Your task to perform on an android device: delete the emails in spam in the gmail app Image 0: 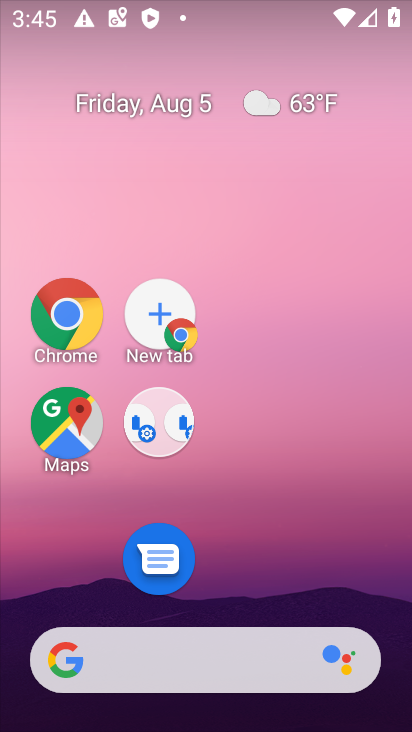
Step 0: drag from (276, 660) to (184, 121)
Your task to perform on an android device: delete the emails in spam in the gmail app Image 1: 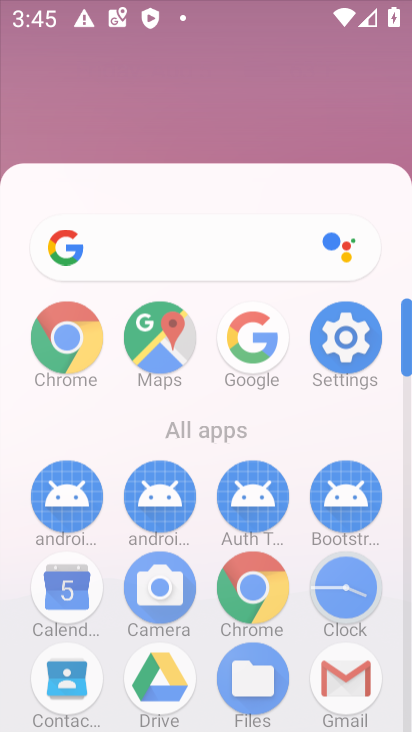
Step 1: drag from (248, 479) to (207, 160)
Your task to perform on an android device: delete the emails in spam in the gmail app Image 2: 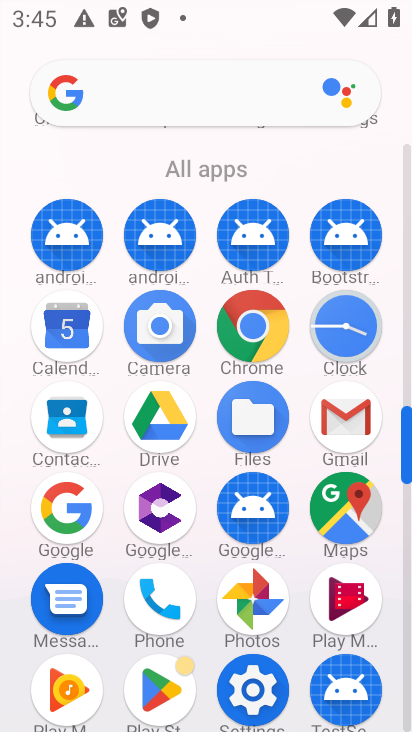
Step 2: drag from (229, 424) to (197, 149)
Your task to perform on an android device: delete the emails in spam in the gmail app Image 3: 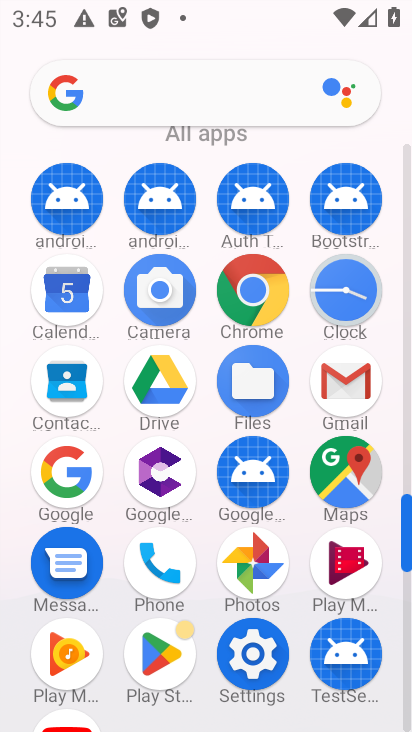
Step 3: click (340, 375)
Your task to perform on an android device: delete the emails in spam in the gmail app Image 4: 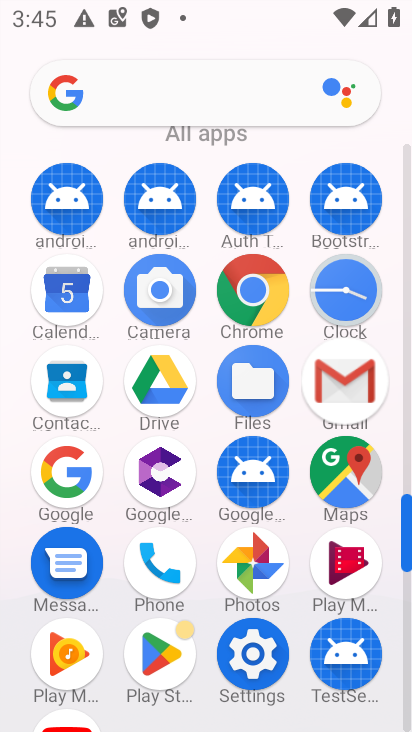
Step 4: click (340, 375)
Your task to perform on an android device: delete the emails in spam in the gmail app Image 5: 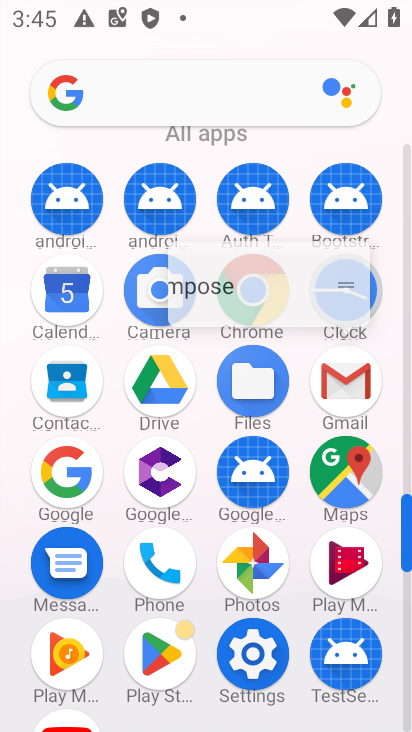
Step 5: click (339, 374)
Your task to perform on an android device: delete the emails in spam in the gmail app Image 6: 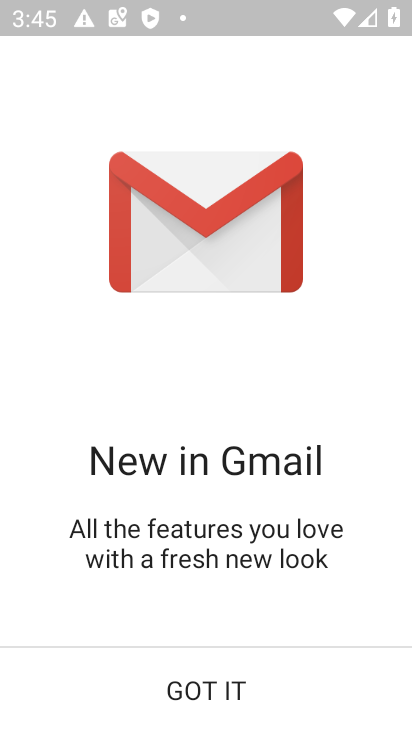
Step 6: click (222, 682)
Your task to perform on an android device: delete the emails in spam in the gmail app Image 7: 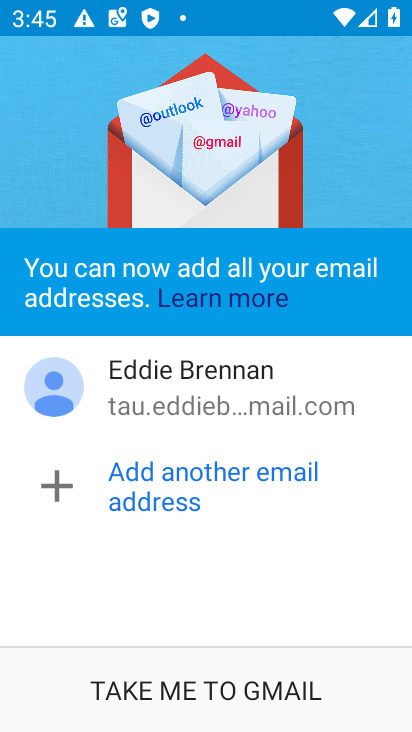
Step 7: click (221, 689)
Your task to perform on an android device: delete the emails in spam in the gmail app Image 8: 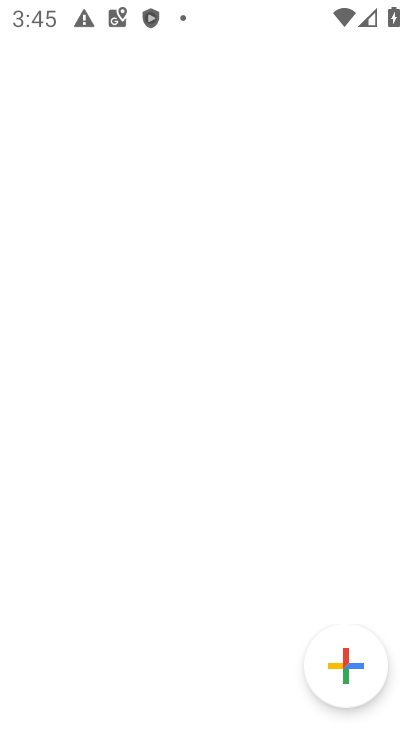
Step 8: click (222, 690)
Your task to perform on an android device: delete the emails in spam in the gmail app Image 9: 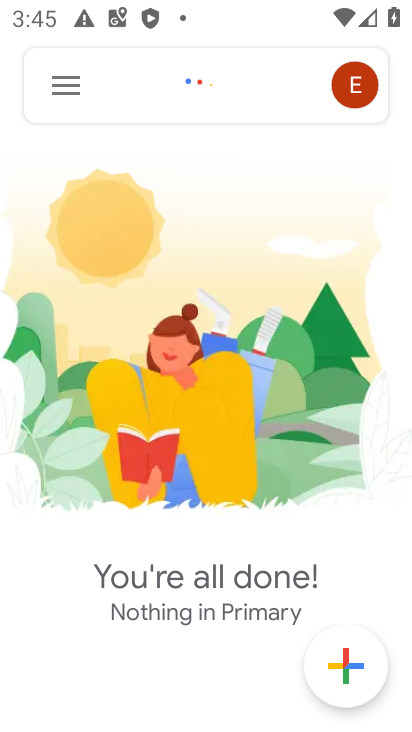
Step 9: click (63, 87)
Your task to perform on an android device: delete the emails in spam in the gmail app Image 10: 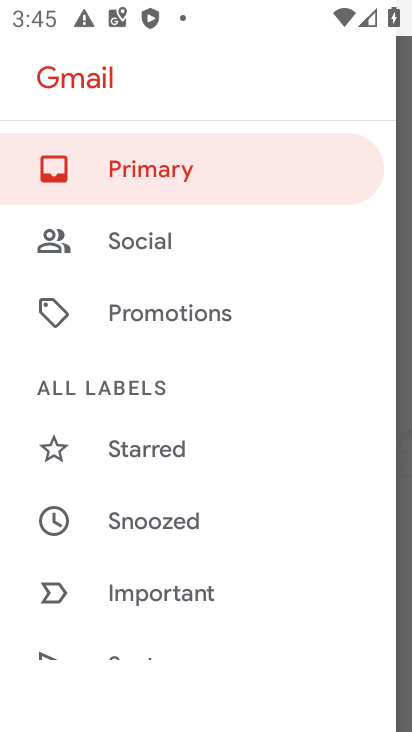
Step 10: drag from (182, 512) to (83, 160)
Your task to perform on an android device: delete the emails in spam in the gmail app Image 11: 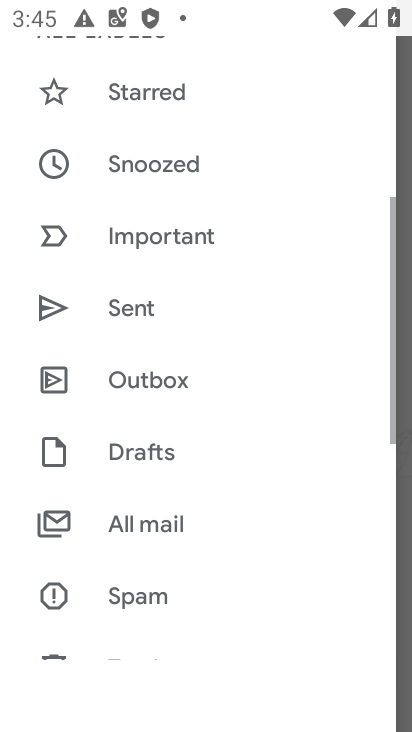
Step 11: drag from (196, 431) to (165, 218)
Your task to perform on an android device: delete the emails in spam in the gmail app Image 12: 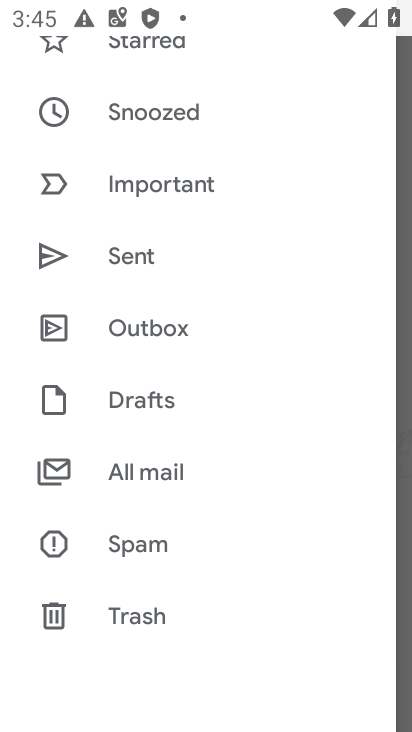
Step 12: click (152, 474)
Your task to perform on an android device: delete the emails in spam in the gmail app Image 13: 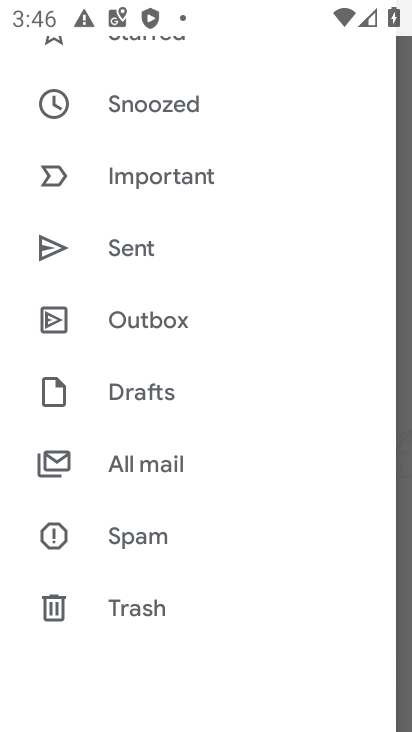
Step 13: click (154, 458)
Your task to perform on an android device: delete the emails in spam in the gmail app Image 14: 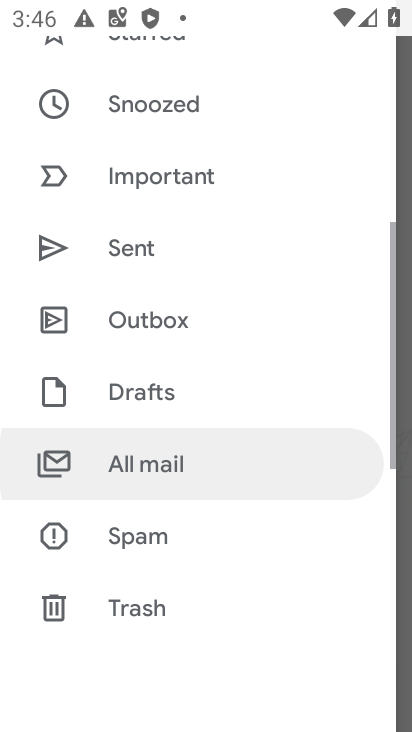
Step 14: click (154, 453)
Your task to perform on an android device: delete the emails in spam in the gmail app Image 15: 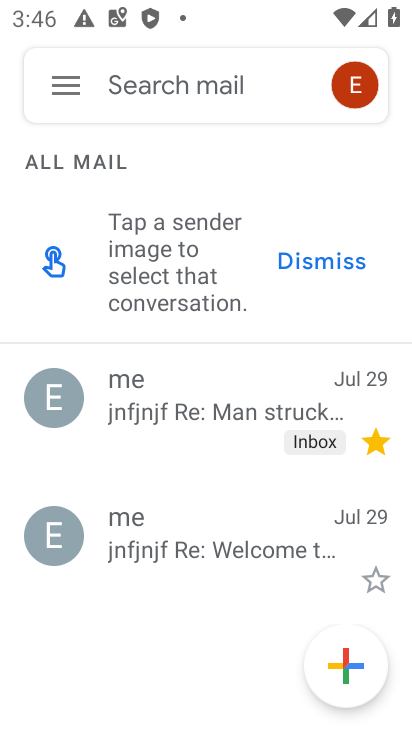
Step 15: click (155, 452)
Your task to perform on an android device: delete the emails in spam in the gmail app Image 16: 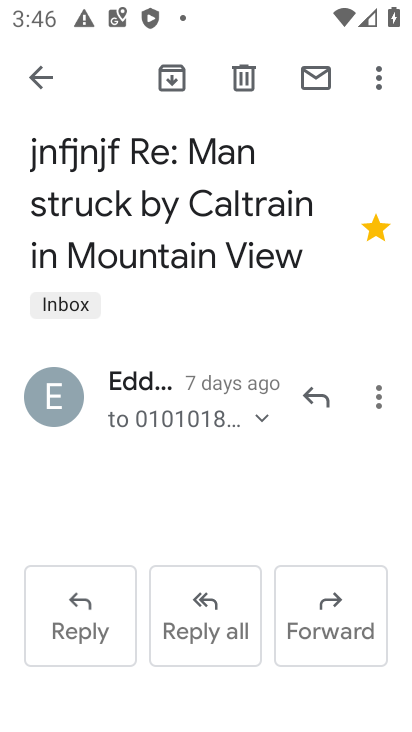
Step 16: click (240, 228)
Your task to perform on an android device: delete the emails in spam in the gmail app Image 17: 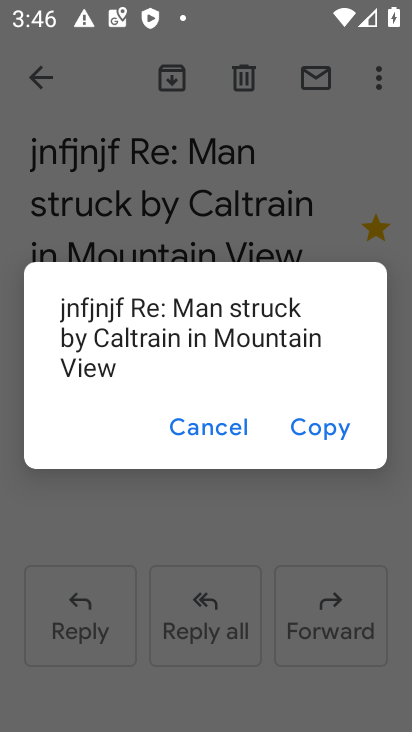
Step 17: click (227, 427)
Your task to perform on an android device: delete the emails in spam in the gmail app Image 18: 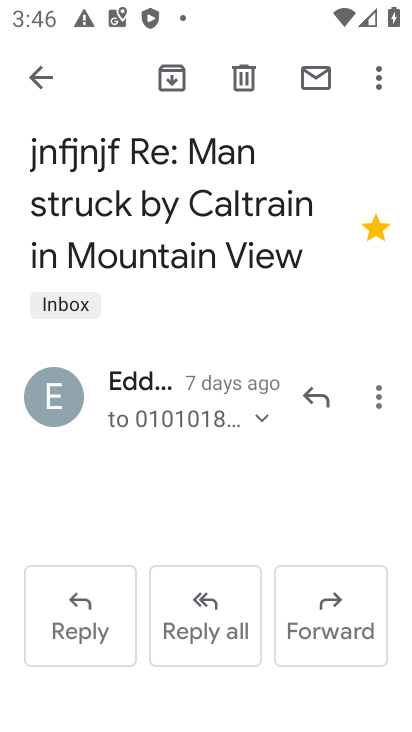
Step 18: click (373, 83)
Your task to perform on an android device: delete the emails in spam in the gmail app Image 19: 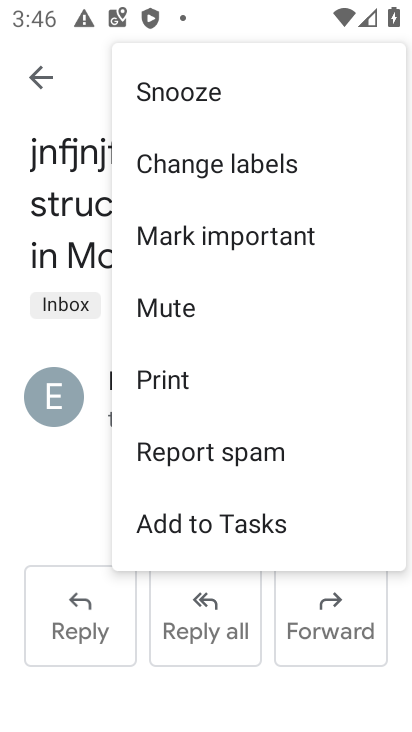
Step 19: click (33, 83)
Your task to perform on an android device: delete the emails in spam in the gmail app Image 20: 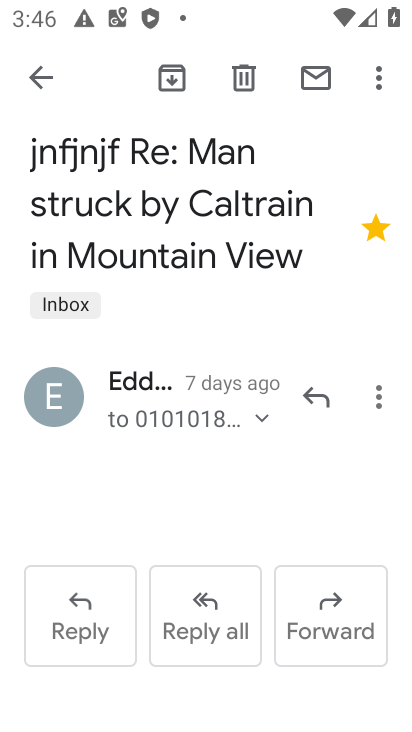
Step 20: click (33, 83)
Your task to perform on an android device: delete the emails in spam in the gmail app Image 21: 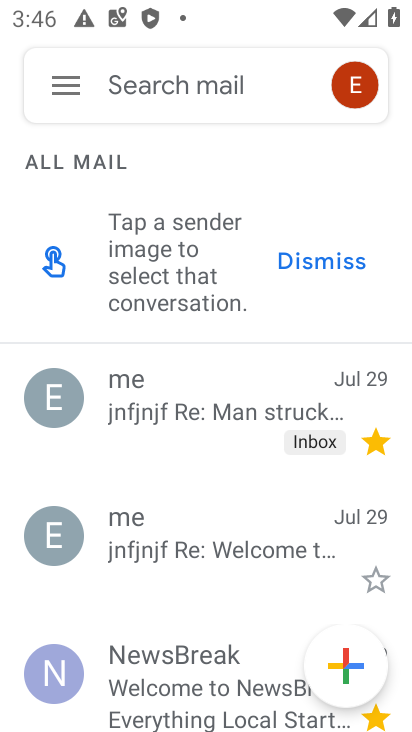
Step 21: click (59, 89)
Your task to perform on an android device: delete the emails in spam in the gmail app Image 22: 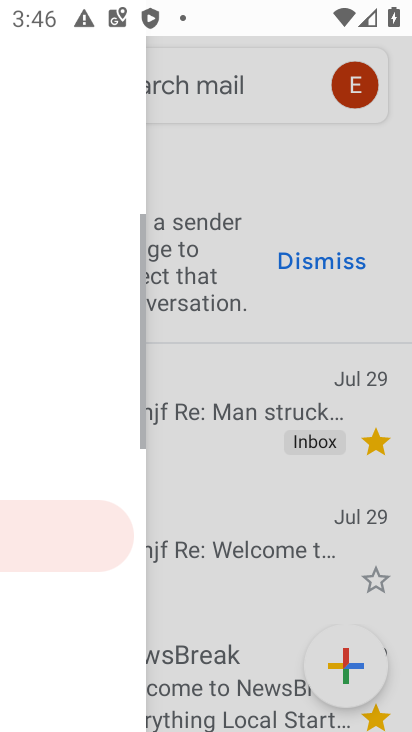
Step 22: click (59, 89)
Your task to perform on an android device: delete the emails in spam in the gmail app Image 23: 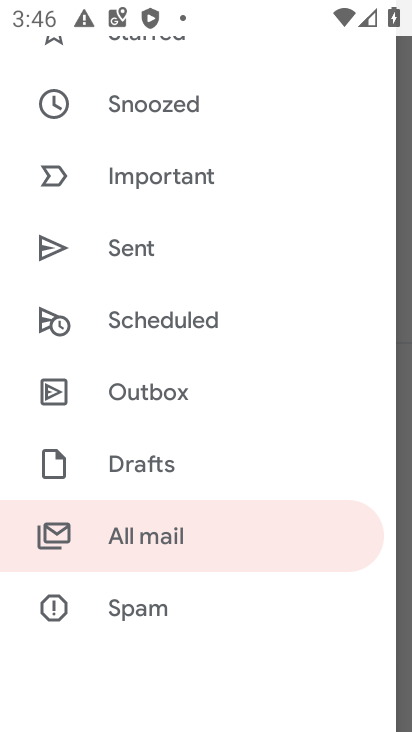
Step 23: click (140, 609)
Your task to perform on an android device: delete the emails in spam in the gmail app Image 24: 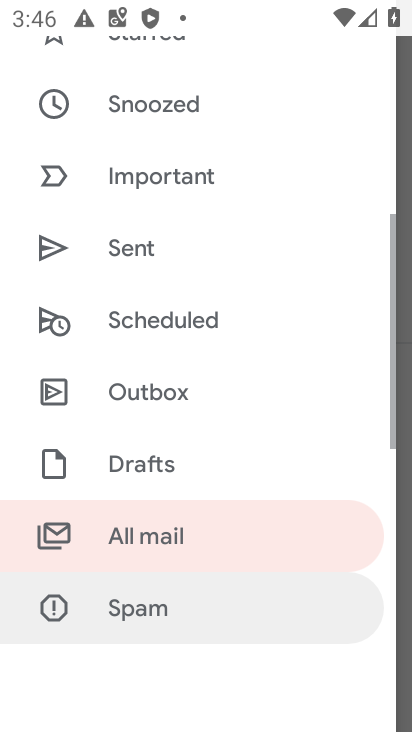
Step 24: click (140, 609)
Your task to perform on an android device: delete the emails in spam in the gmail app Image 25: 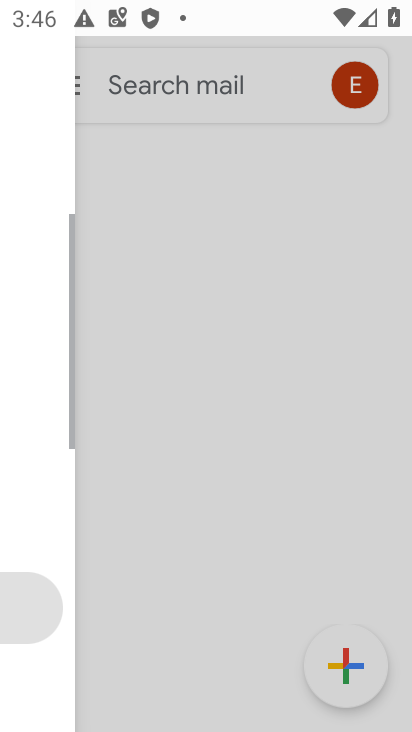
Step 25: click (141, 609)
Your task to perform on an android device: delete the emails in spam in the gmail app Image 26: 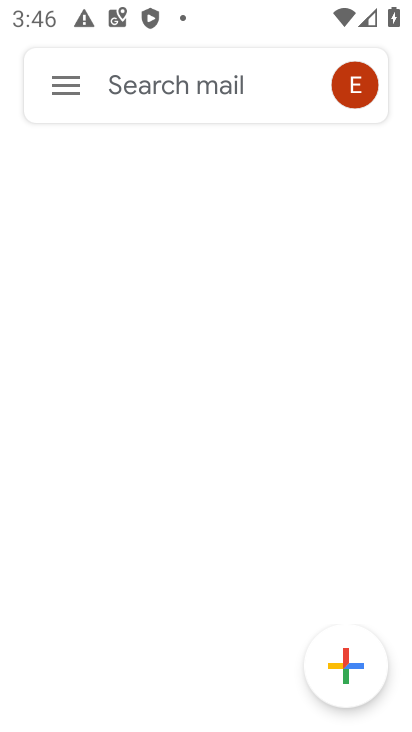
Step 26: click (142, 610)
Your task to perform on an android device: delete the emails in spam in the gmail app Image 27: 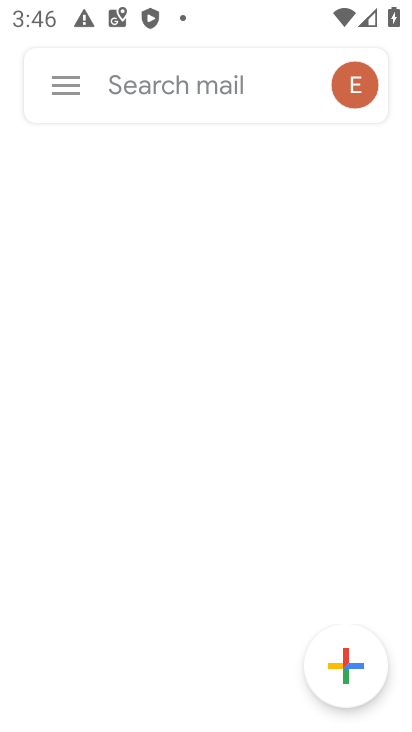
Step 27: click (147, 613)
Your task to perform on an android device: delete the emails in spam in the gmail app Image 28: 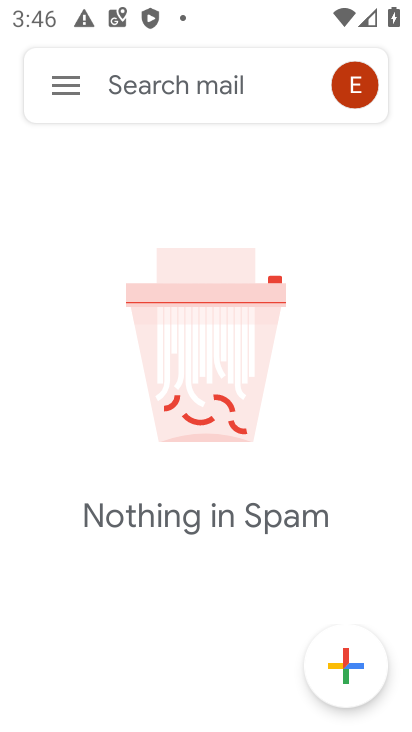
Step 28: task complete